Your task to perform on an android device: turn on showing notifications on the lock screen Image 0: 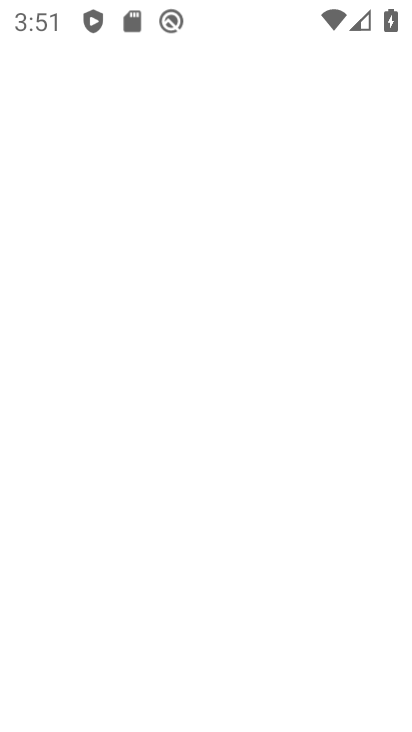
Step 0: press home button
Your task to perform on an android device: turn on showing notifications on the lock screen Image 1: 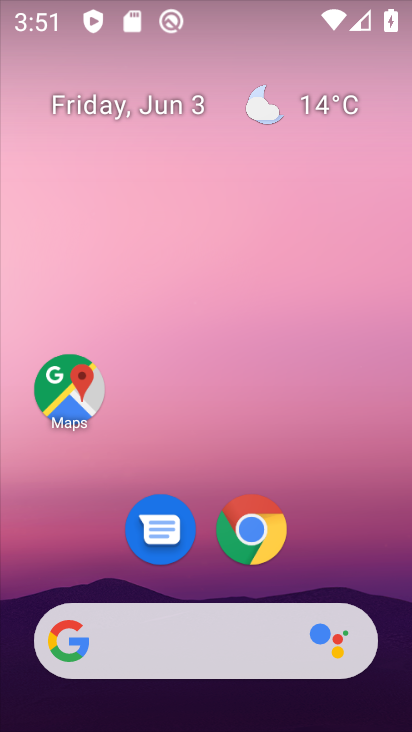
Step 1: drag from (206, 559) to (210, 75)
Your task to perform on an android device: turn on showing notifications on the lock screen Image 2: 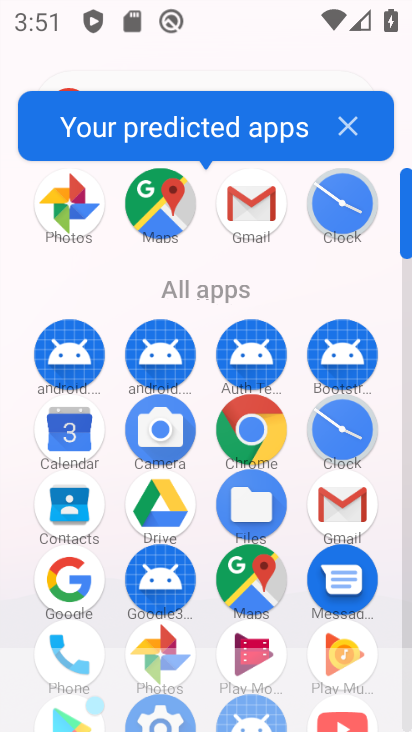
Step 2: drag from (200, 552) to (230, 118)
Your task to perform on an android device: turn on showing notifications on the lock screen Image 3: 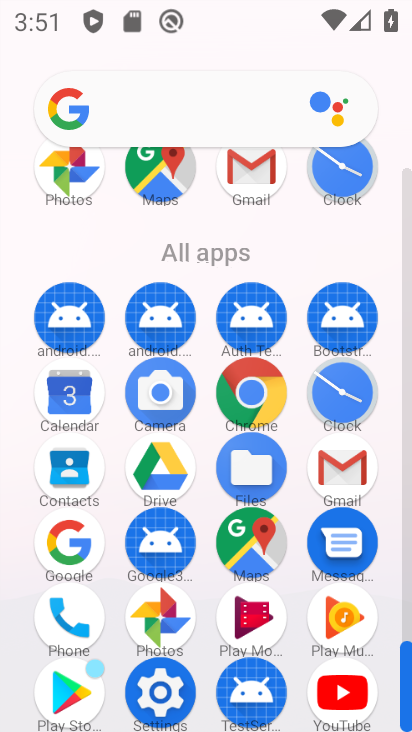
Step 3: click (161, 683)
Your task to perform on an android device: turn on showing notifications on the lock screen Image 4: 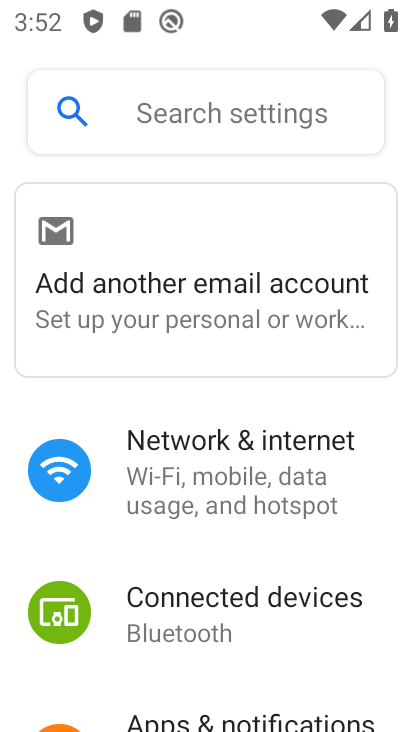
Step 4: click (258, 716)
Your task to perform on an android device: turn on showing notifications on the lock screen Image 5: 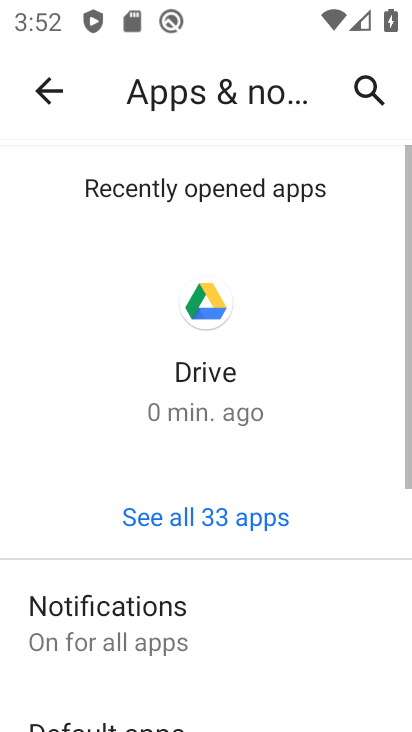
Step 5: click (200, 617)
Your task to perform on an android device: turn on showing notifications on the lock screen Image 6: 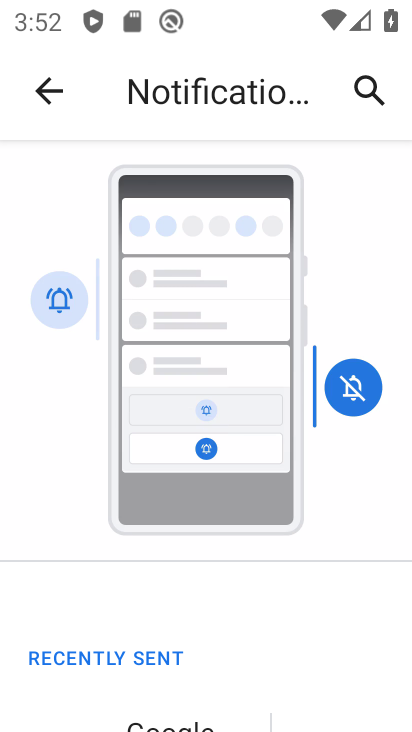
Step 6: drag from (259, 349) to (276, 91)
Your task to perform on an android device: turn on showing notifications on the lock screen Image 7: 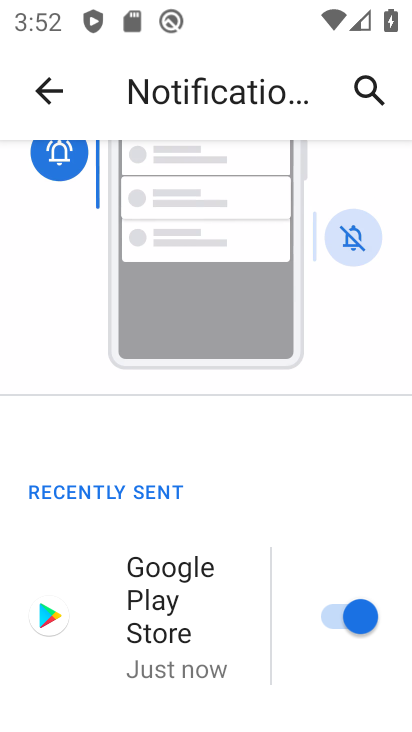
Step 7: drag from (269, 701) to (309, 58)
Your task to perform on an android device: turn on showing notifications on the lock screen Image 8: 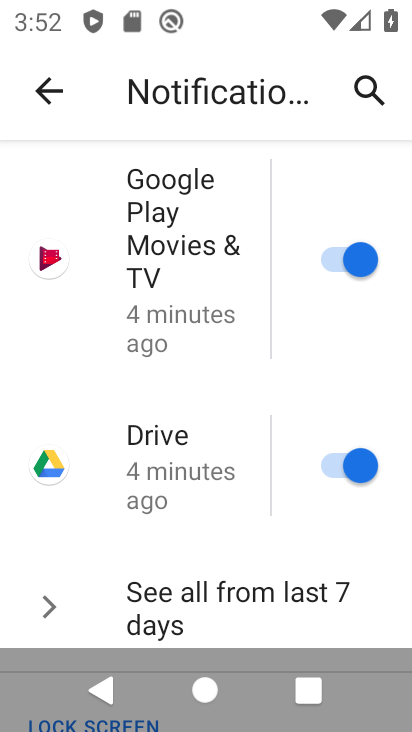
Step 8: drag from (237, 613) to (289, 37)
Your task to perform on an android device: turn on showing notifications on the lock screen Image 9: 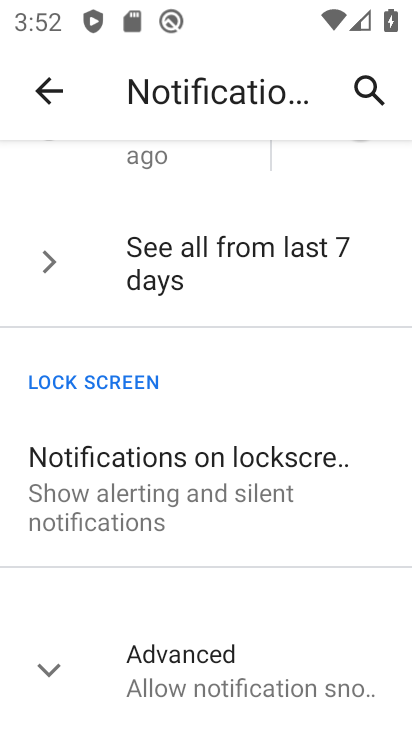
Step 9: click (221, 488)
Your task to perform on an android device: turn on showing notifications on the lock screen Image 10: 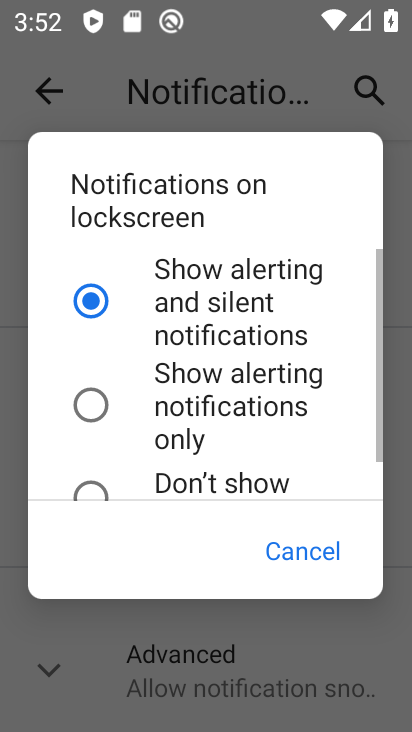
Step 10: click (98, 396)
Your task to perform on an android device: turn on showing notifications on the lock screen Image 11: 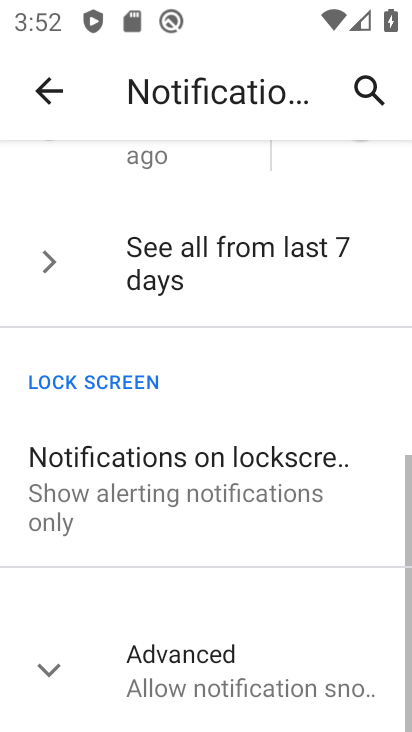
Step 11: task complete